Your task to perform on an android device: toggle airplane mode Image 0: 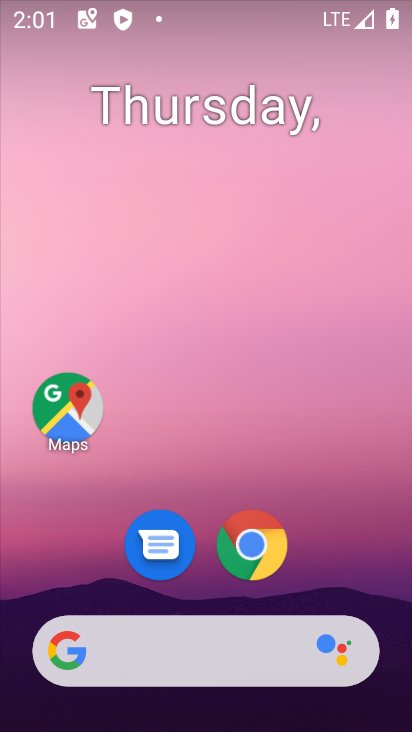
Step 0: drag from (134, 713) to (222, 21)
Your task to perform on an android device: toggle airplane mode Image 1: 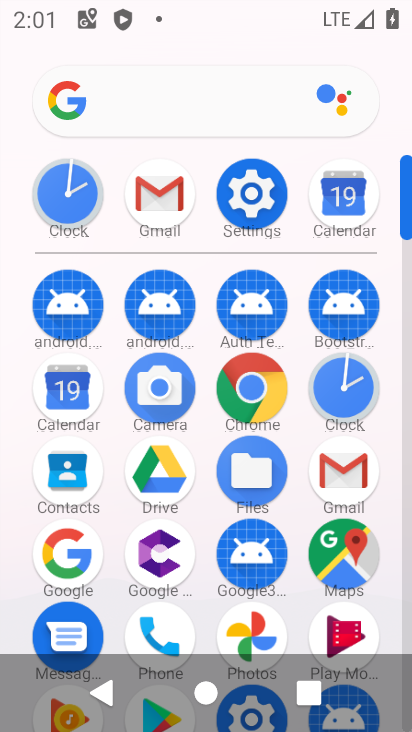
Step 1: click (267, 202)
Your task to perform on an android device: toggle airplane mode Image 2: 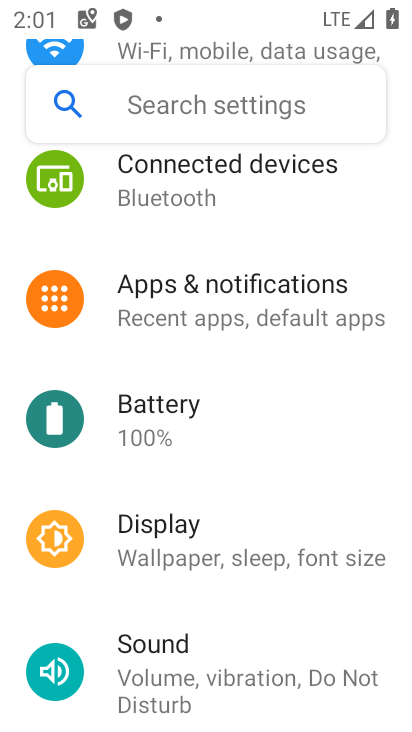
Step 2: drag from (328, 222) to (312, 537)
Your task to perform on an android device: toggle airplane mode Image 3: 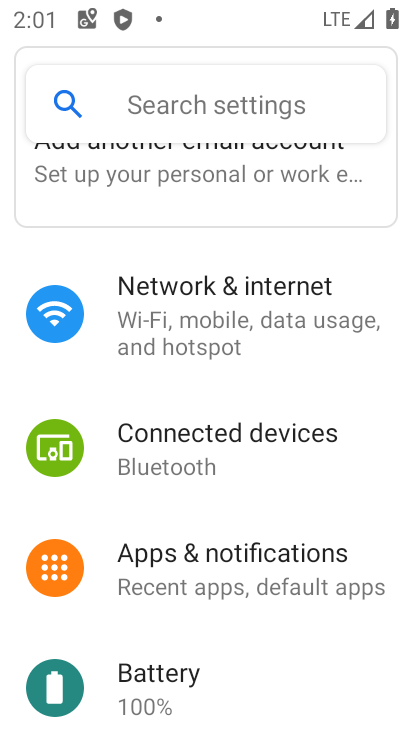
Step 3: click (313, 292)
Your task to perform on an android device: toggle airplane mode Image 4: 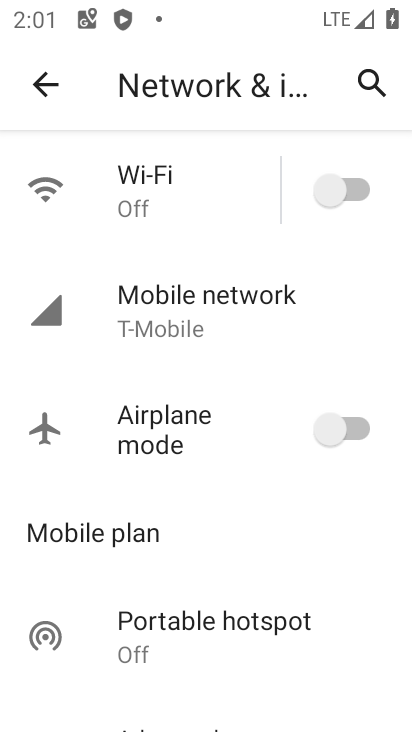
Step 4: click (356, 421)
Your task to perform on an android device: toggle airplane mode Image 5: 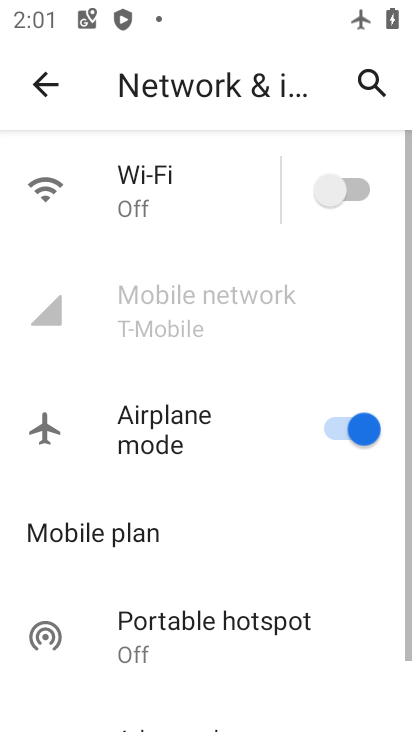
Step 5: task complete